Your task to perform on an android device: Do I have any events tomorrow? Image 0: 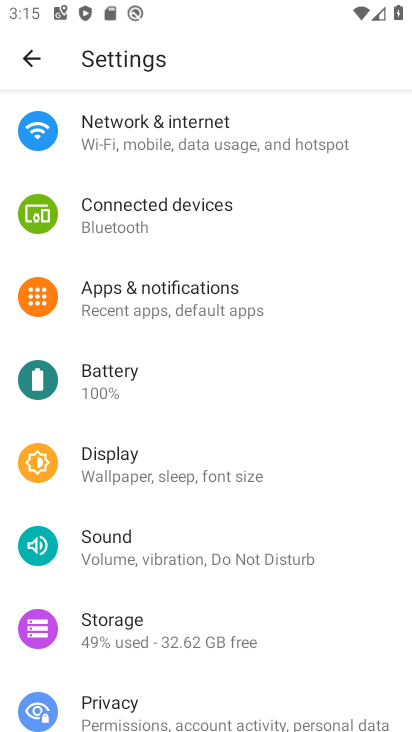
Step 0: press home button
Your task to perform on an android device: Do I have any events tomorrow? Image 1: 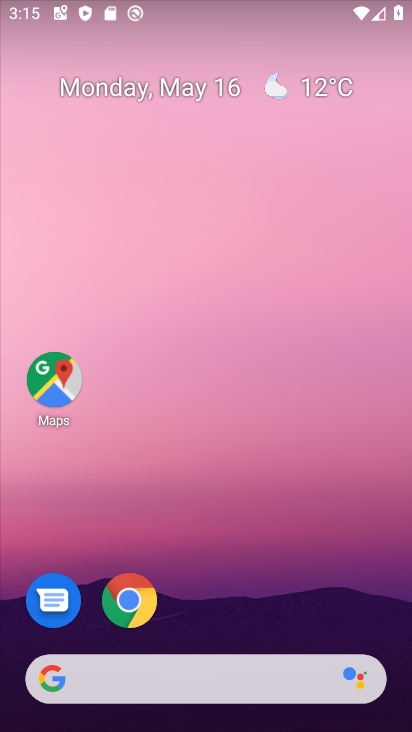
Step 1: drag from (208, 653) to (267, 27)
Your task to perform on an android device: Do I have any events tomorrow? Image 2: 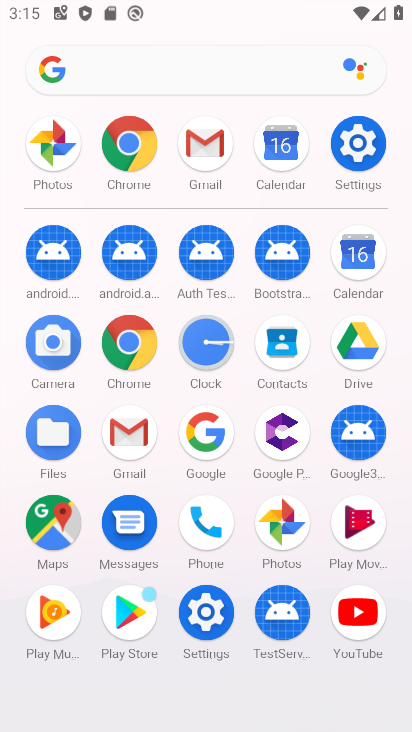
Step 2: click (363, 267)
Your task to perform on an android device: Do I have any events tomorrow? Image 3: 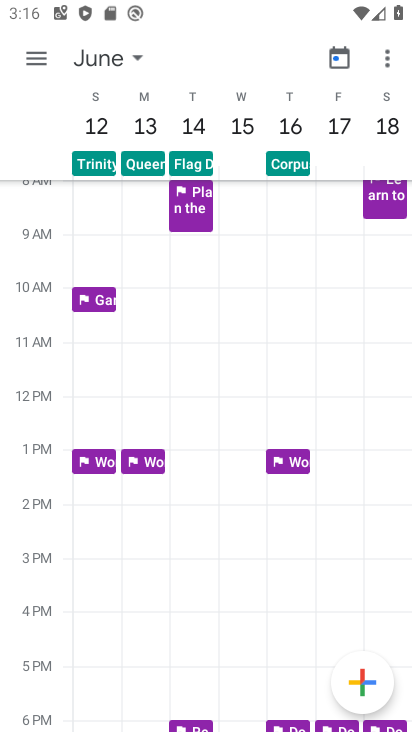
Step 3: click (343, 55)
Your task to perform on an android device: Do I have any events tomorrow? Image 4: 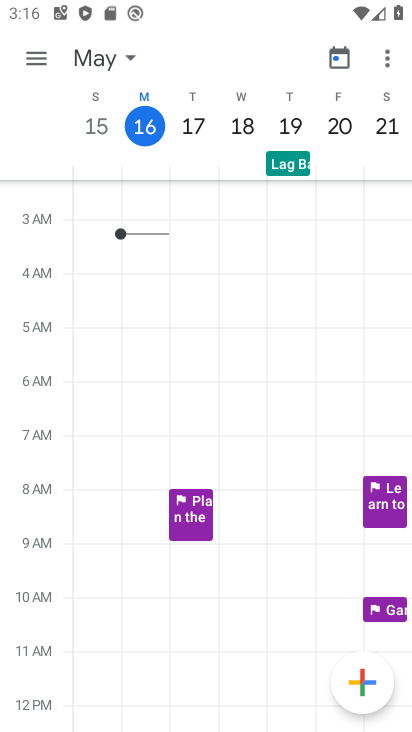
Step 4: click (179, 130)
Your task to perform on an android device: Do I have any events tomorrow? Image 5: 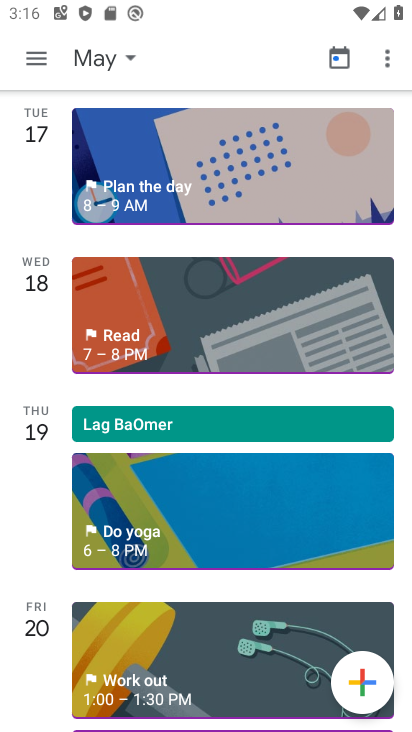
Step 5: task complete